Your task to perform on an android device: Go to sound settings Image 0: 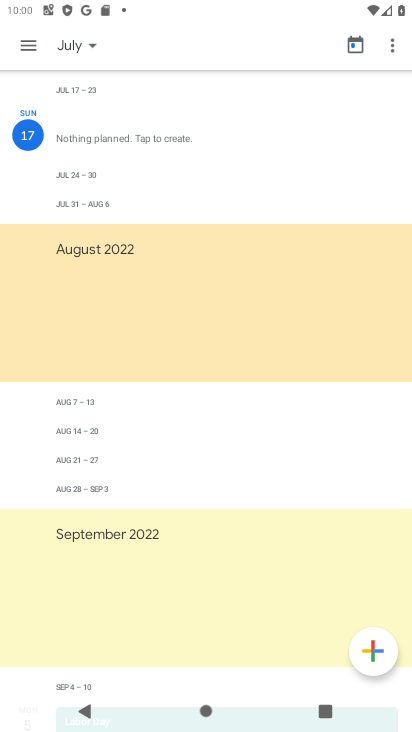
Step 0: press home button
Your task to perform on an android device: Go to sound settings Image 1: 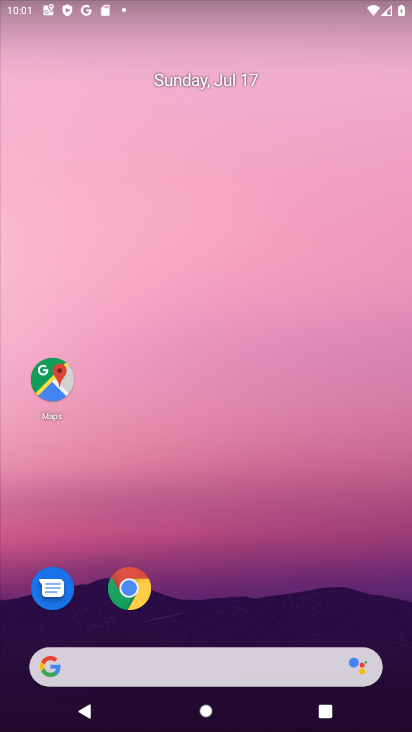
Step 1: drag from (207, 622) to (24, 418)
Your task to perform on an android device: Go to sound settings Image 2: 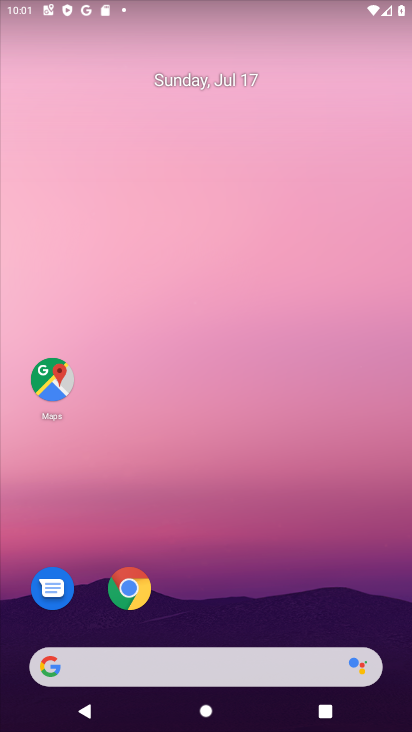
Step 2: drag from (219, 576) to (262, 47)
Your task to perform on an android device: Go to sound settings Image 3: 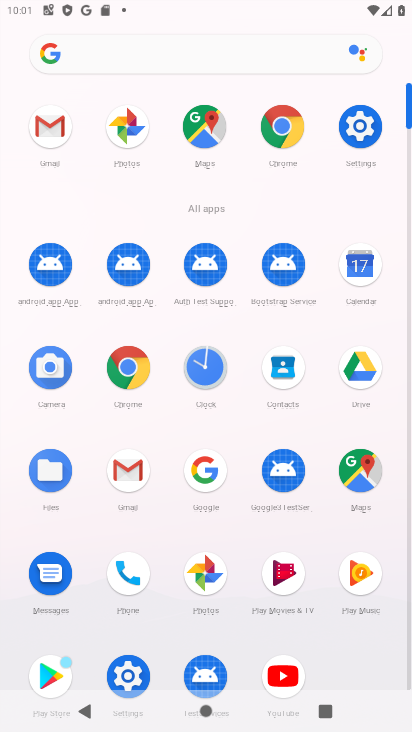
Step 3: click (351, 131)
Your task to perform on an android device: Go to sound settings Image 4: 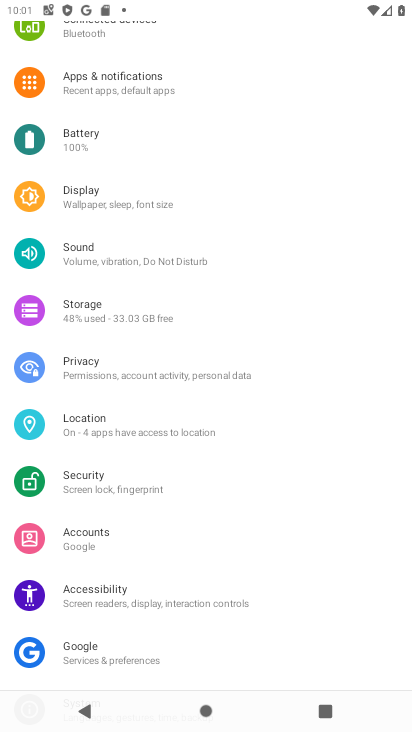
Step 4: click (84, 257)
Your task to perform on an android device: Go to sound settings Image 5: 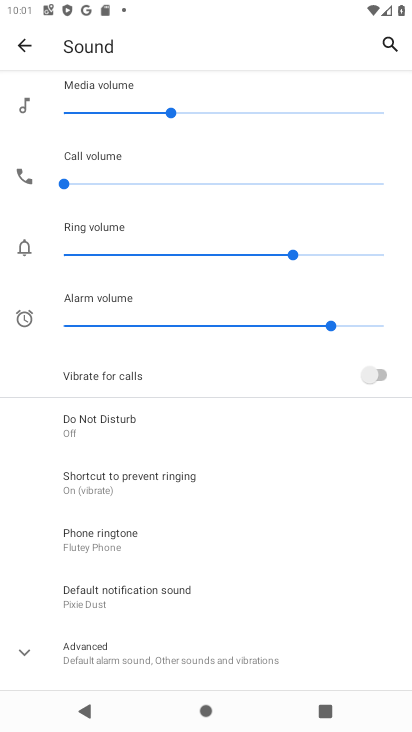
Step 5: click (119, 651)
Your task to perform on an android device: Go to sound settings Image 6: 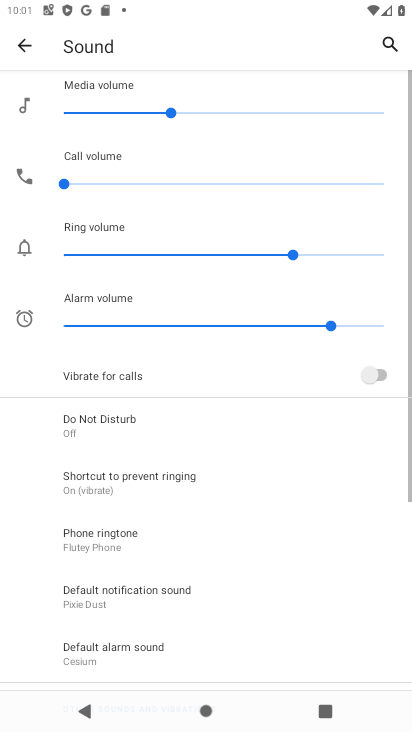
Step 6: task complete